Your task to perform on an android device: Open the Play Movies app and select the watchlist tab. Image 0: 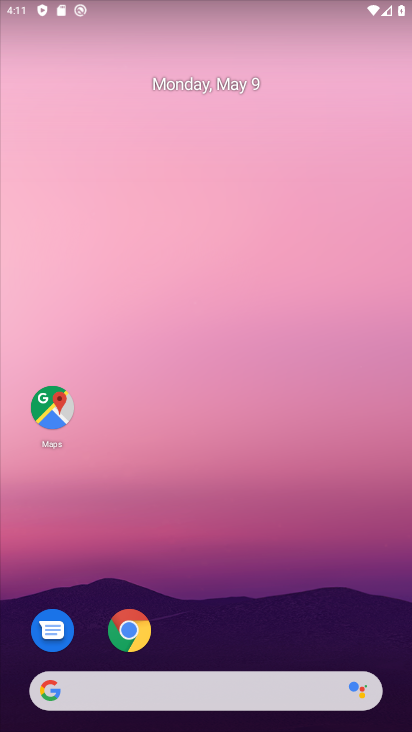
Step 0: drag from (311, 620) to (120, 89)
Your task to perform on an android device: Open the Play Movies app and select the watchlist tab. Image 1: 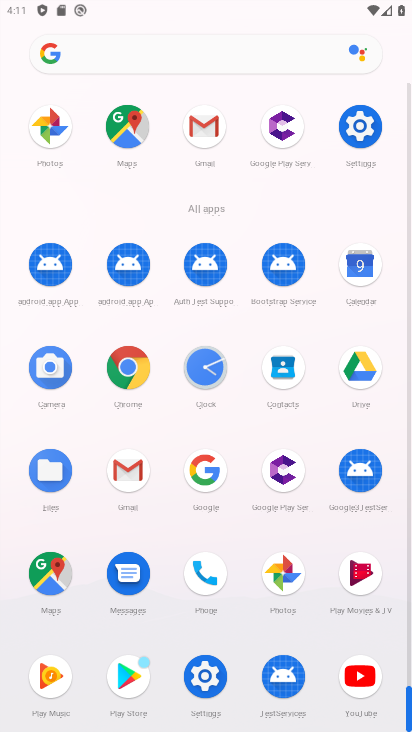
Step 1: click (359, 575)
Your task to perform on an android device: Open the Play Movies app and select the watchlist tab. Image 2: 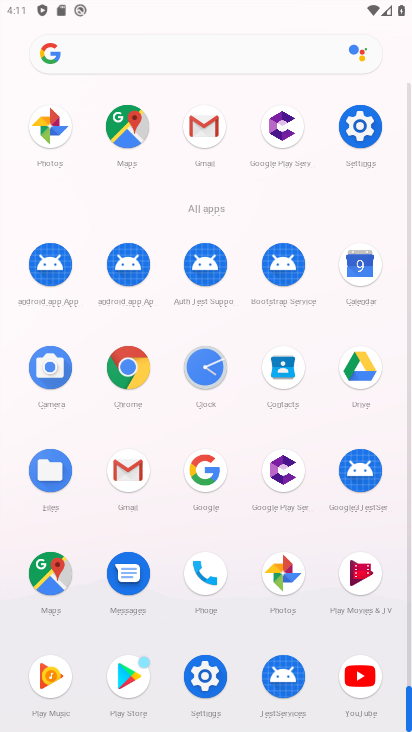
Step 2: click (367, 570)
Your task to perform on an android device: Open the Play Movies app and select the watchlist tab. Image 3: 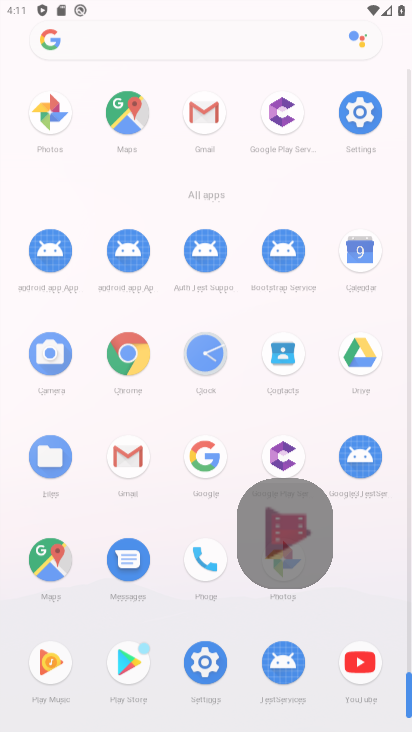
Step 3: click (370, 575)
Your task to perform on an android device: Open the Play Movies app and select the watchlist tab. Image 4: 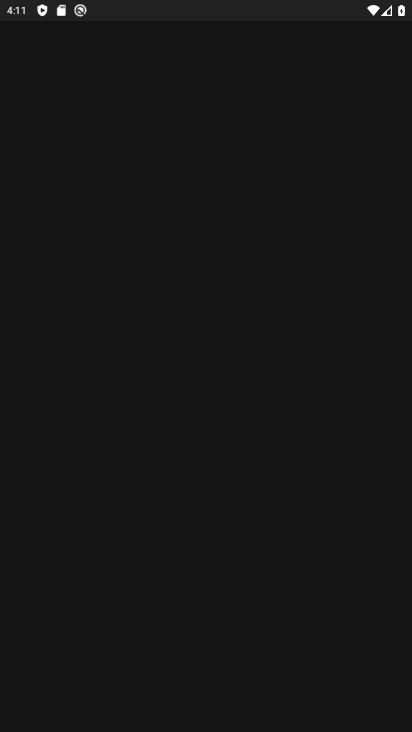
Step 4: click (370, 575)
Your task to perform on an android device: Open the Play Movies app and select the watchlist tab. Image 5: 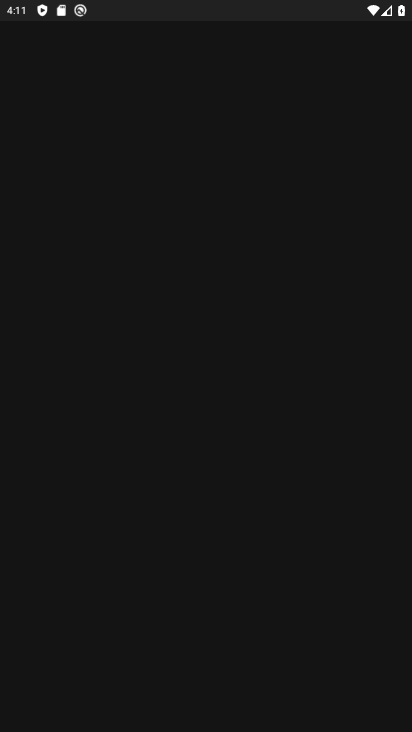
Step 5: click (378, 570)
Your task to perform on an android device: Open the Play Movies app and select the watchlist tab. Image 6: 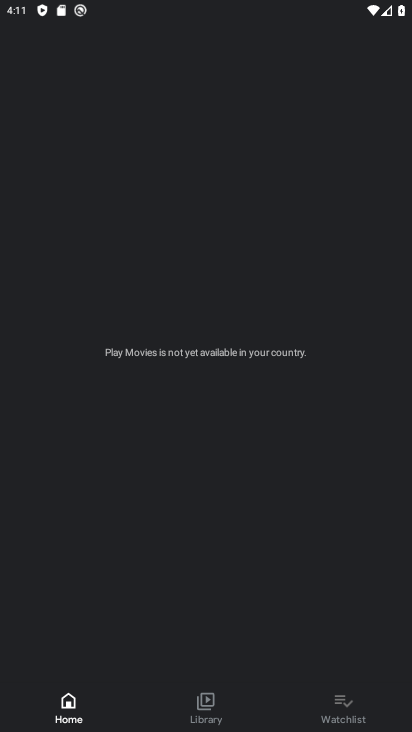
Step 6: press back button
Your task to perform on an android device: Open the Play Movies app and select the watchlist tab. Image 7: 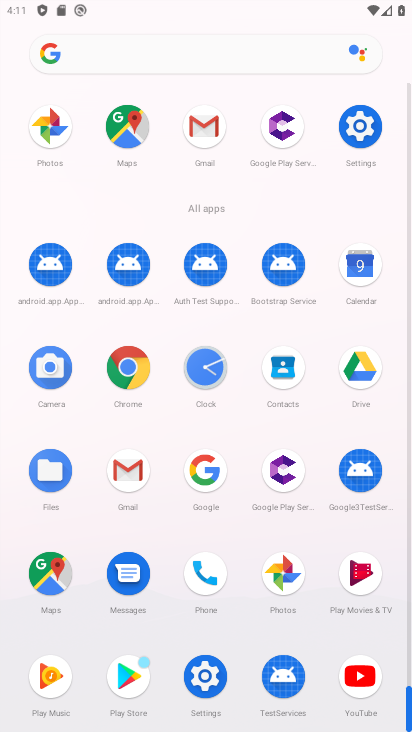
Step 7: click (53, 684)
Your task to perform on an android device: Open the Play Movies app and select the watchlist tab. Image 8: 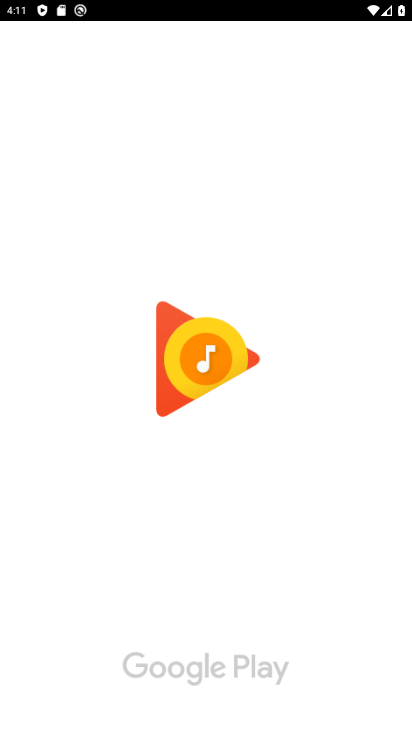
Step 8: press back button
Your task to perform on an android device: Open the Play Movies app and select the watchlist tab. Image 9: 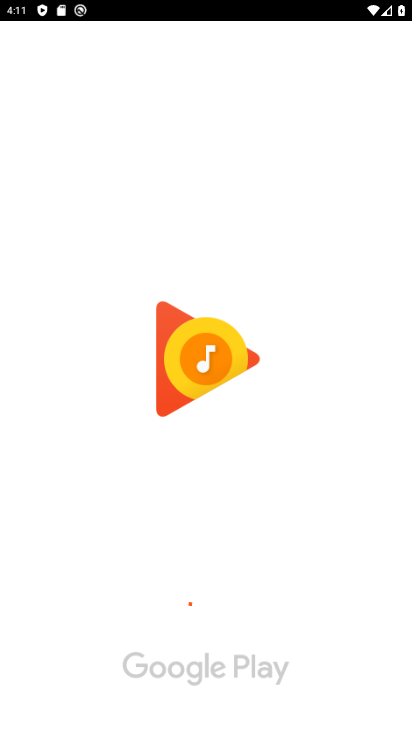
Step 9: press home button
Your task to perform on an android device: Open the Play Movies app and select the watchlist tab. Image 10: 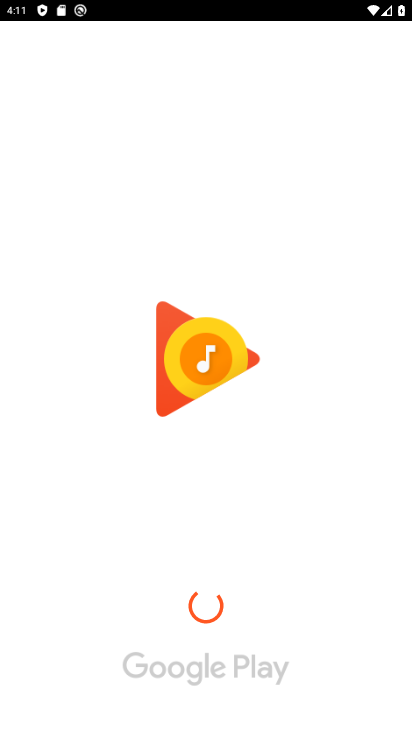
Step 10: press home button
Your task to perform on an android device: Open the Play Movies app and select the watchlist tab. Image 11: 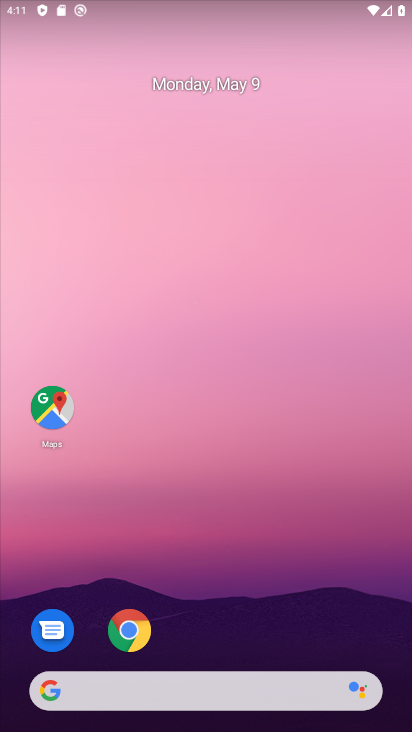
Step 11: drag from (263, 652) to (151, 108)
Your task to perform on an android device: Open the Play Movies app and select the watchlist tab. Image 12: 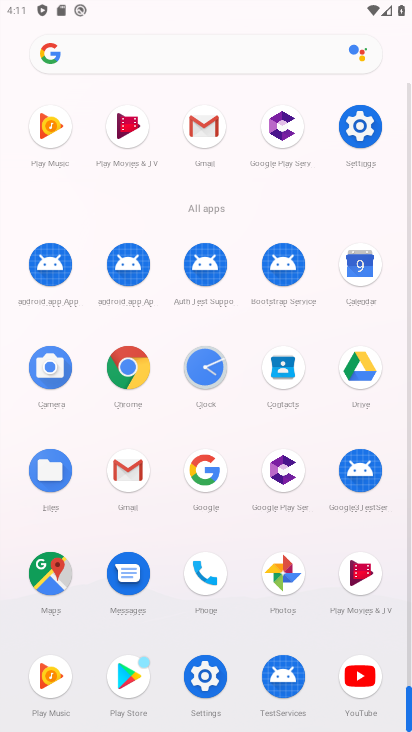
Step 12: click (357, 577)
Your task to perform on an android device: Open the Play Movies app and select the watchlist tab. Image 13: 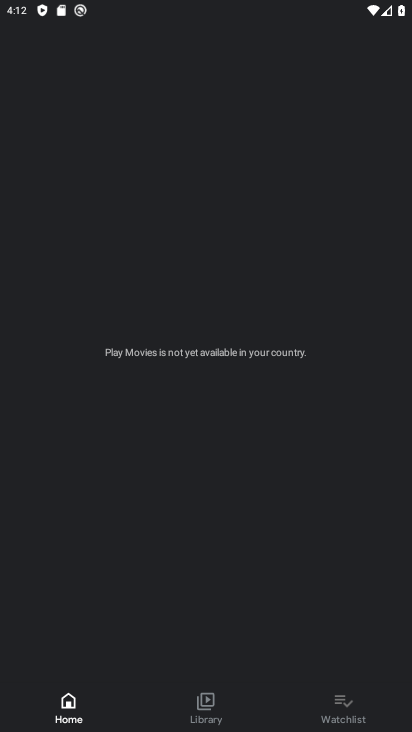
Step 13: click (357, 708)
Your task to perform on an android device: Open the Play Movies app and select the watchlist tab. Image 14: 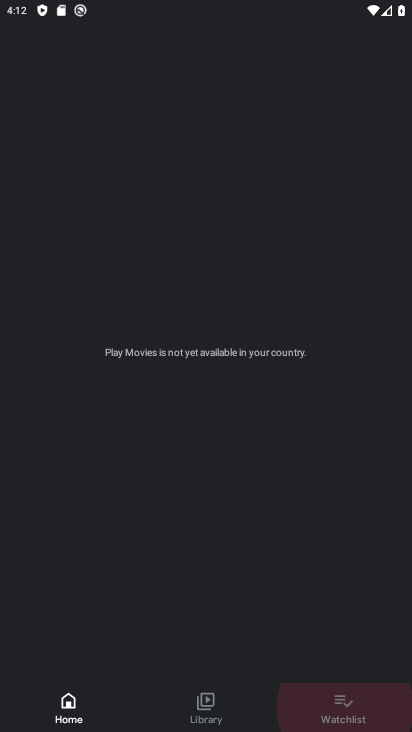
Step 14: click (357, 708)
Your task to perform on an android device: Open the Play Movies app and select the watchlist tab. Image 15: 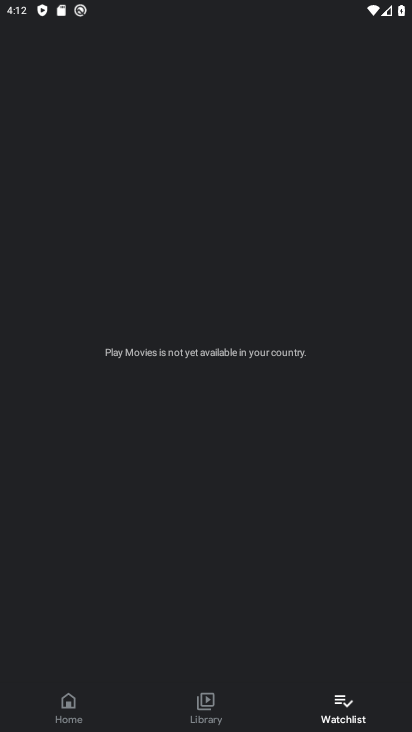
Step 15: click (357, 708)
Your task to perform on an android device: Open the Play Movies app and select the watchlist tab. Image 16: 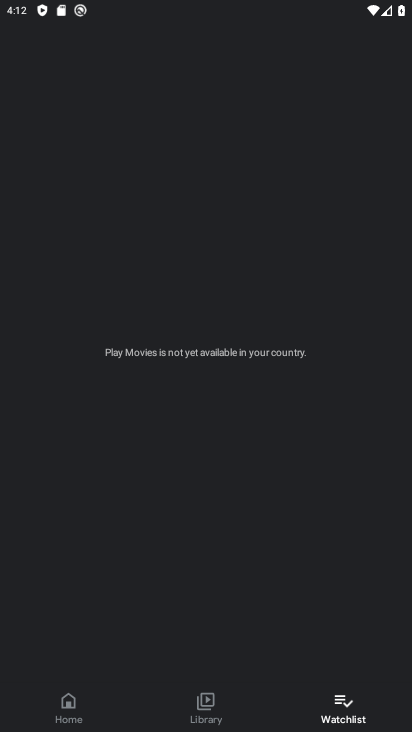
Step 16: click (354, 716)
Your task to perform on an android device: Open the Play Movies app and select the watchlist tab. Image 17: 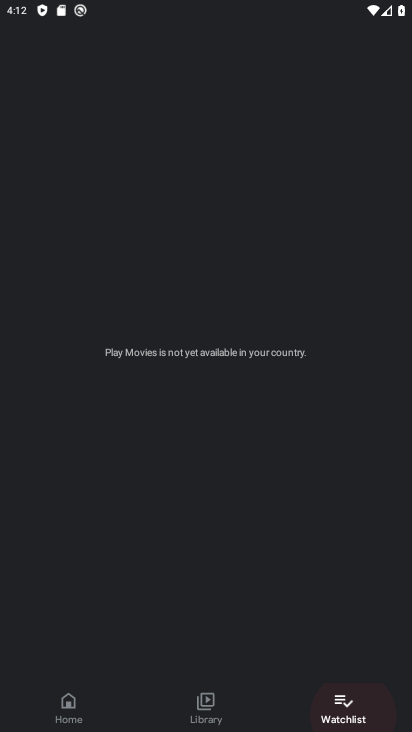
Step 17: click (353, 716)
Your task to perform on an android device: Open the Play Movies app and select the watchlist tab. Image 18: 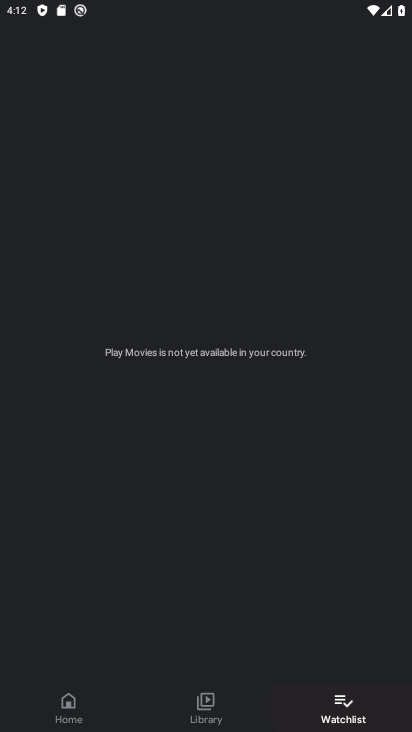
Step 18: click (349, 716)
Your task to perform on an android device: Open the Play Movies app and select the watchlist tab. Image 19: 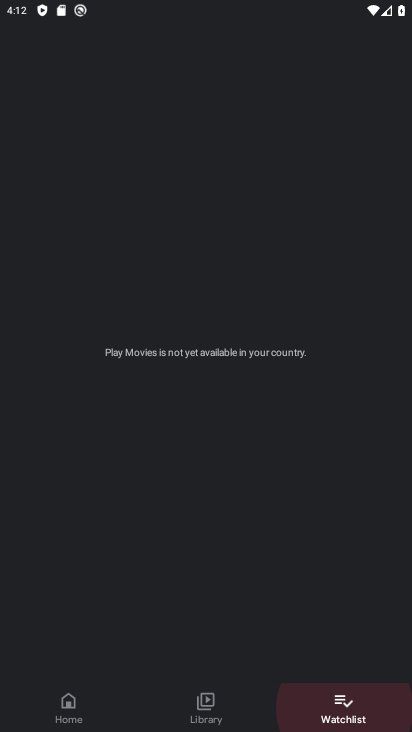
Step 19: click (349, 713)
Your task to perform on an android device: Open the Play Movies app and select the watchlist tab. Image 20: 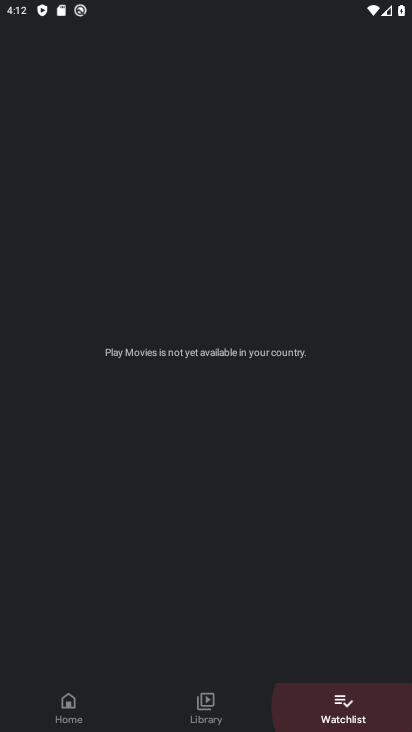
Step 20: click (351, 705)
Your task to perform on an android device: Open the Play Movies app and select the watchlist tab. Image 21: 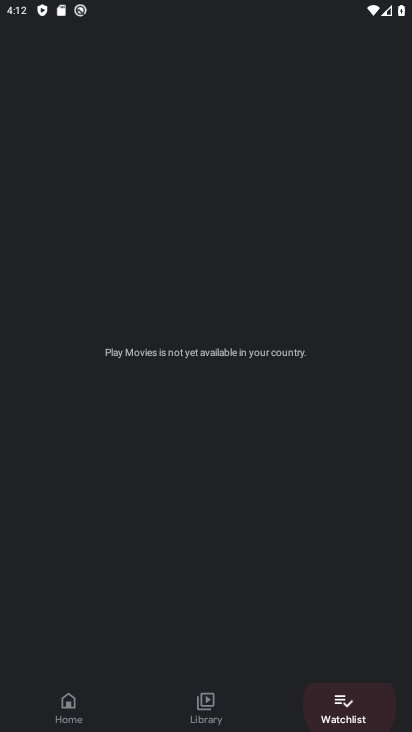
Step 21: click (351, 705)
Your task to perform on an android device: Open the Play Movies app and select the watchlist tab. Image 22: 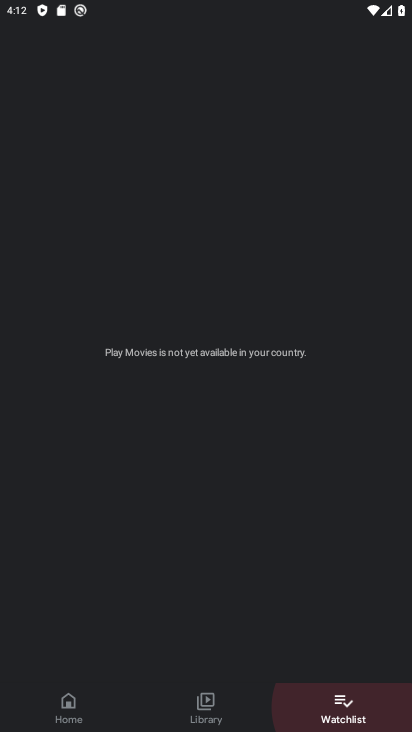
Step 22: click (352, 705)
Your task to perform on an android device: Open the Play Movies app and select the watchlist tab. Image 23: 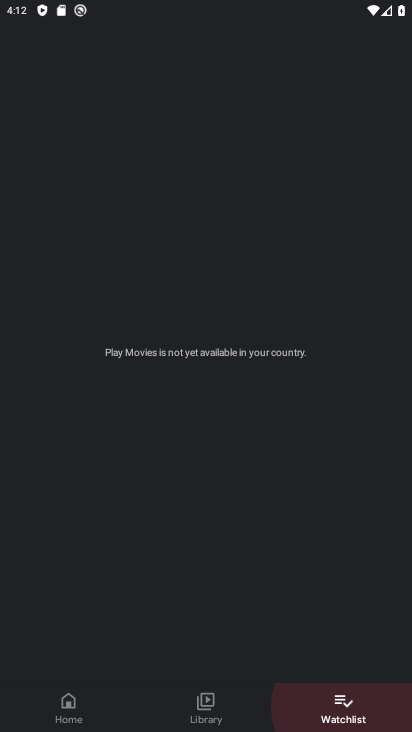
Step 23: click (353, 704)
Your task to perform on an android device: Open the Play Movies app and select the watchlist tab. Image 24: 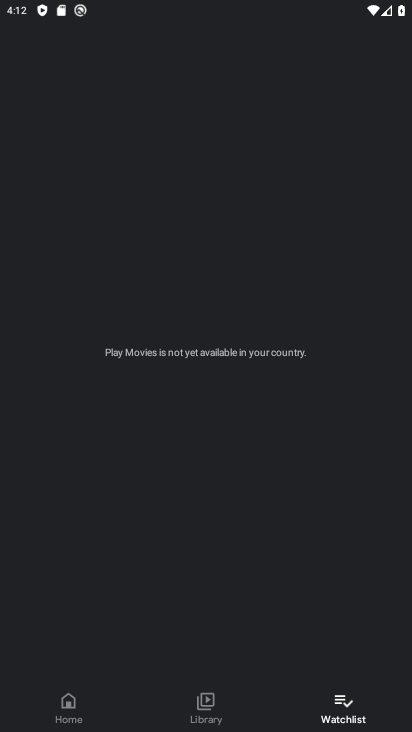
Step 24: task complete